Your task to perform on an android device: turn on wifi Image 0: 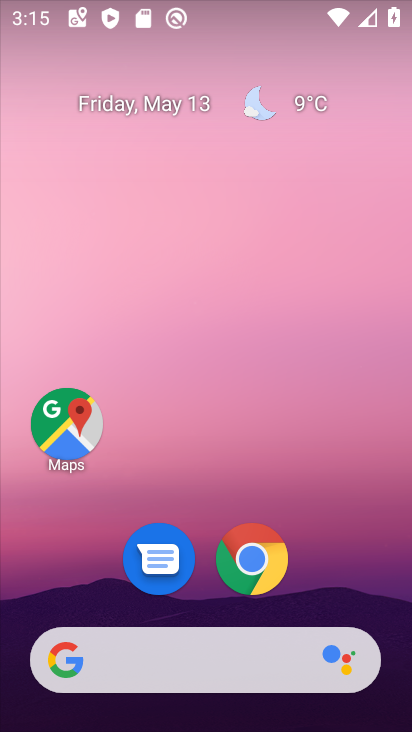
Step 0: drag from (398, 641) to (291, 103)
Your task to perform on an android device: turn on wifi Image 1: 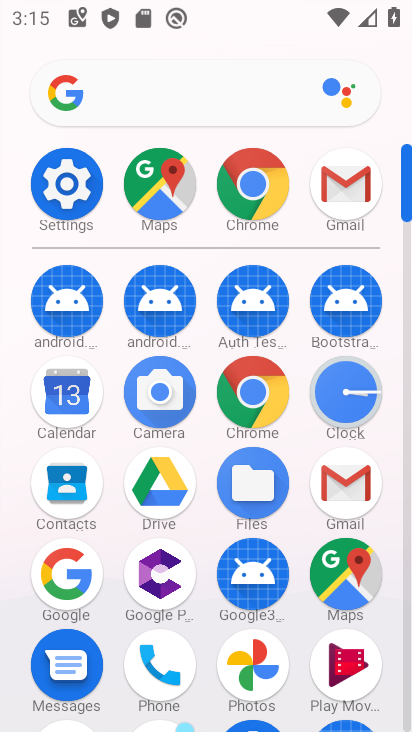
Step 1: click (406, 709)
Your task to perform on an android device: turn on wifi Image 2: 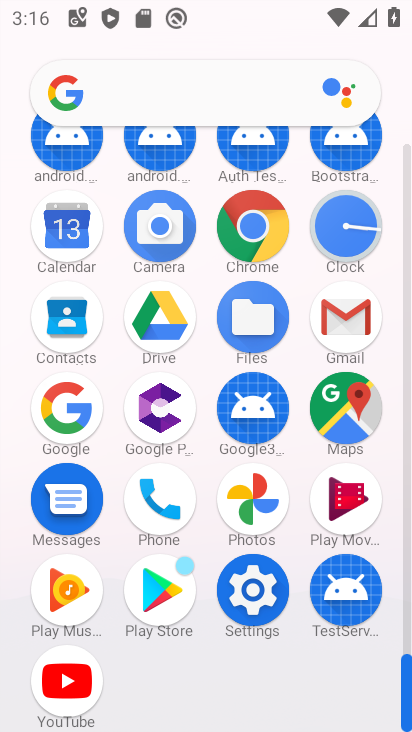
Step 2: click (256, 587)
Your task to perform on an android device: turn on wifi Image 3: 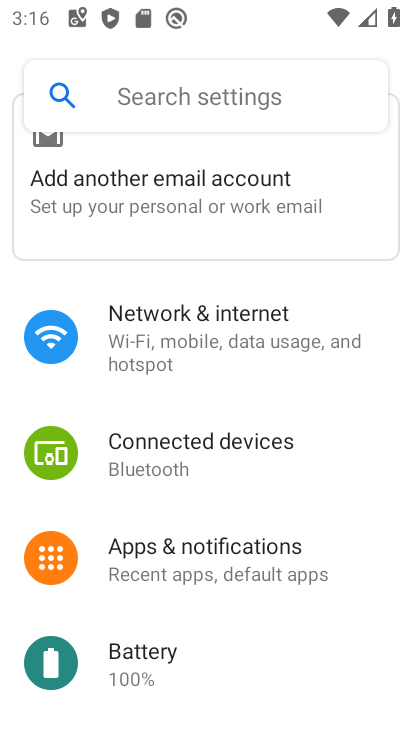
Step 3: click (131, 326)
Your task to perform on an android device: turn on wifi Image 4: 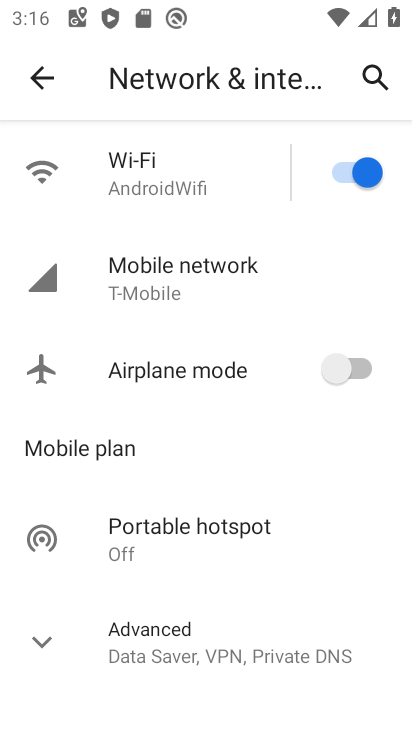
Step 4: task complete